Your task to perform on an android device: Clear all items from cart on newegg. Search for "razer kraken" on newegg, select the first entry, add it to the cart, then select checkout. Image 0: 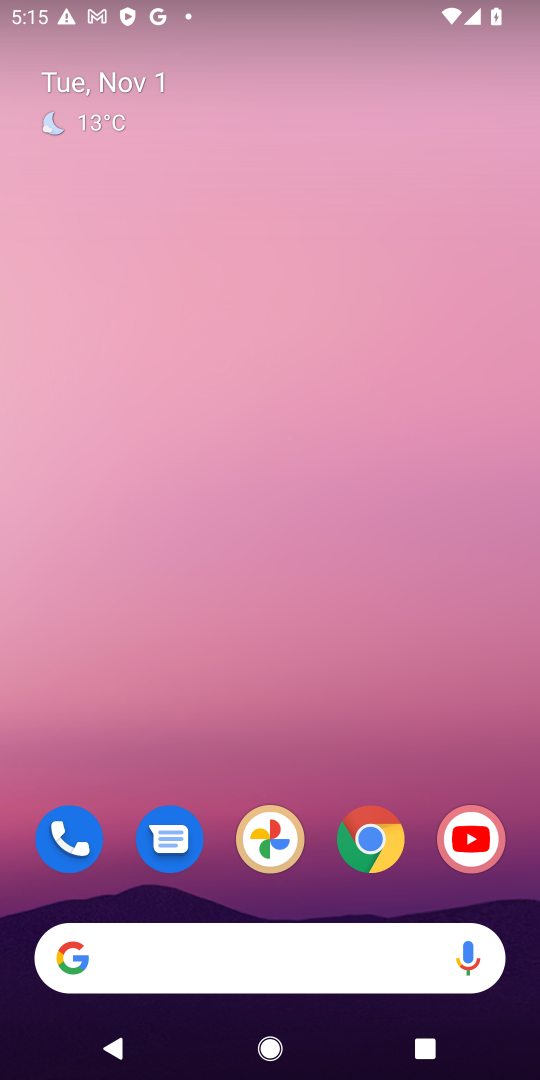
Step 0: drag from (307, 887) to (413, 81)
Your task to perform on an android device: Clear all items from cart on newegg. Search for "razer kraken" on newegg, select the first entry, add it to the cart, then select checkout. Image 1: 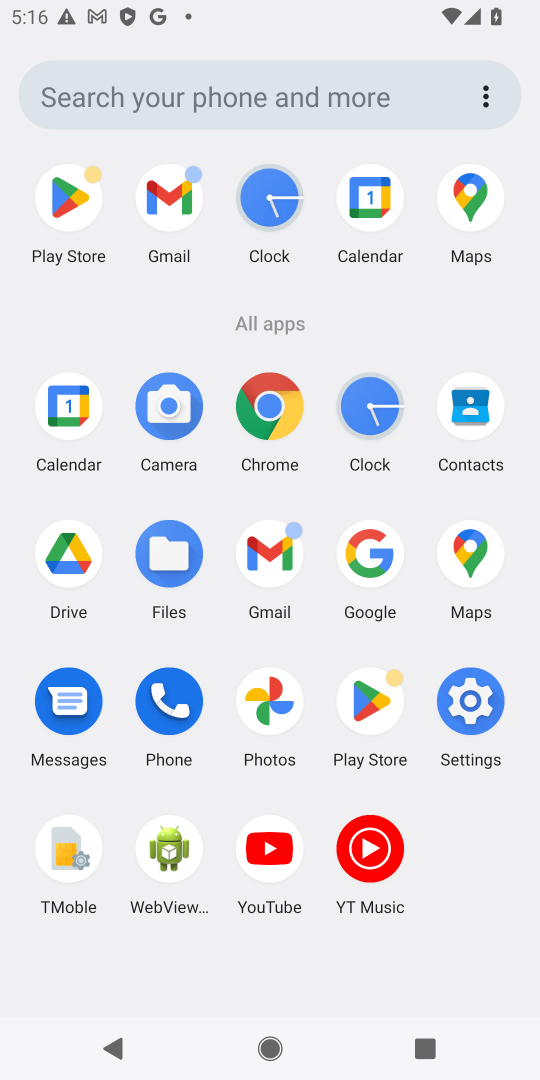
Step 1: click (268, 401)
Your task to perform on an android device: Clear all items from cart on newegg. Search for "razer kraken" on newegg, select the first entry, add it to the cart, then select checkout. Image 2: 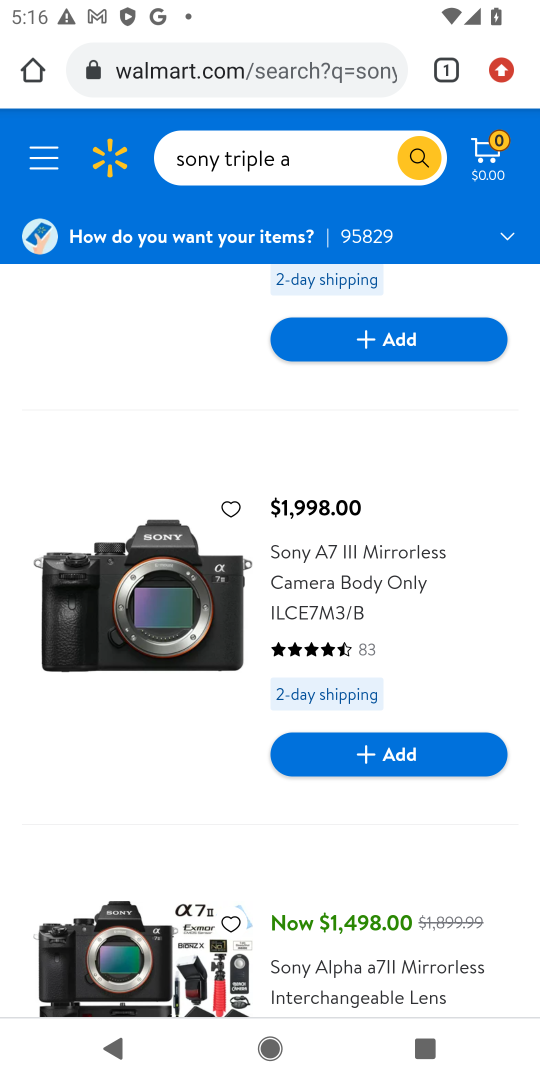
Step 2: click (485, 152)
Your task to perform on an android device: Clear all items from cart on newegg. Search for "razer kraken" on newegg, select the first entry, add it to the cart, then select checkout. Image 3: 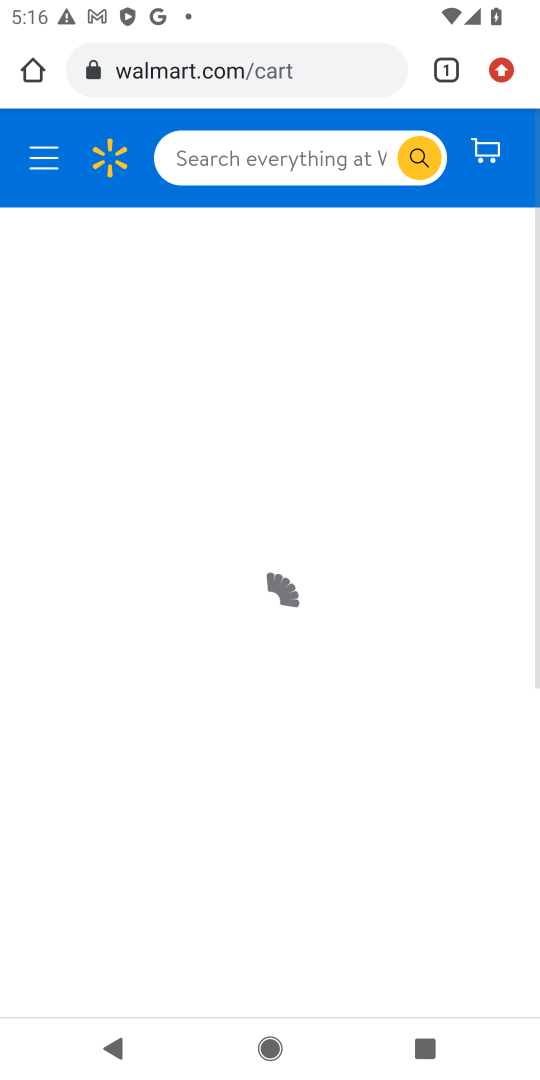
Step 3: click (325, 158)
Your task to perform on an android device: Clear all items from cart on newegg. Search for "razer kraken" on newegg, select the first entry, add it to the cart, then select checkout. Image 4: 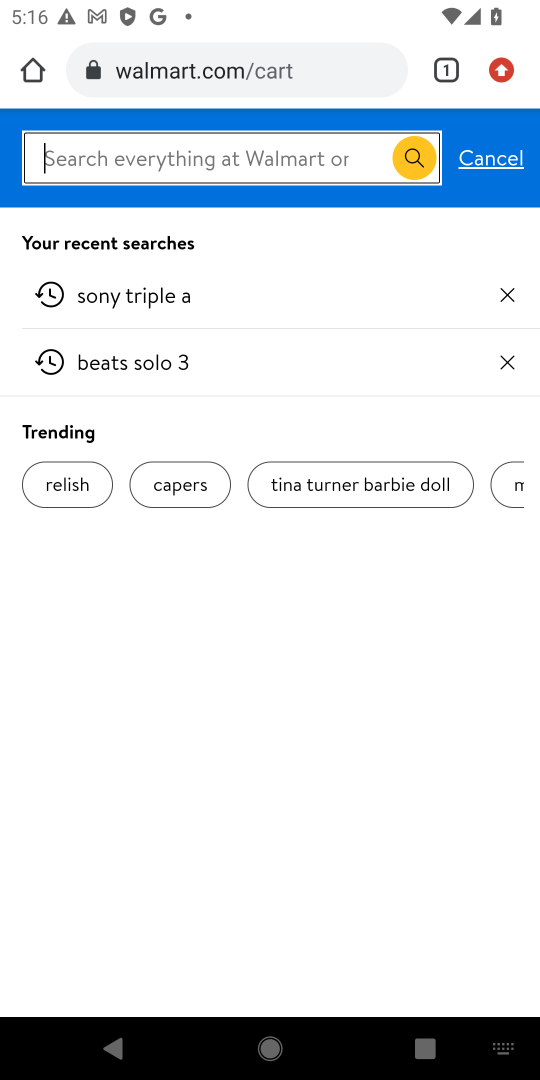
Step 4: click (330, 74)
Your task to perform on an android device: Clear all items from cart on newegg. Search for "razer kraken" on newegg, select the first entry, add it to the cart, then select checkout. Image 5: 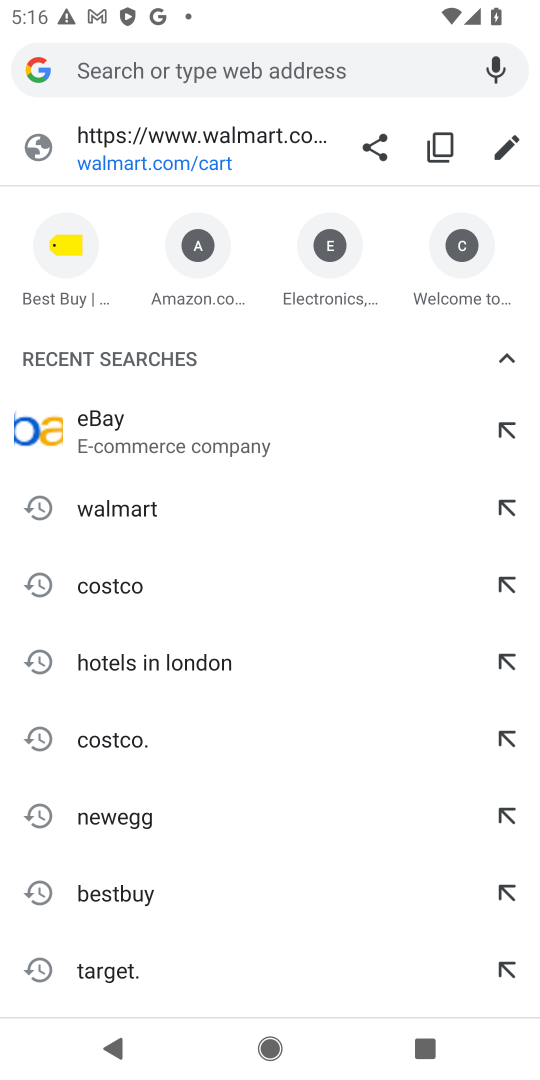
Step 5: type "newegg.com"
Your task to perform on an android device: Clear all items from cart on newegg. Search for "razer kraken" on newegg, select the first entry, add it to the cart, then select checkout. Image 6: 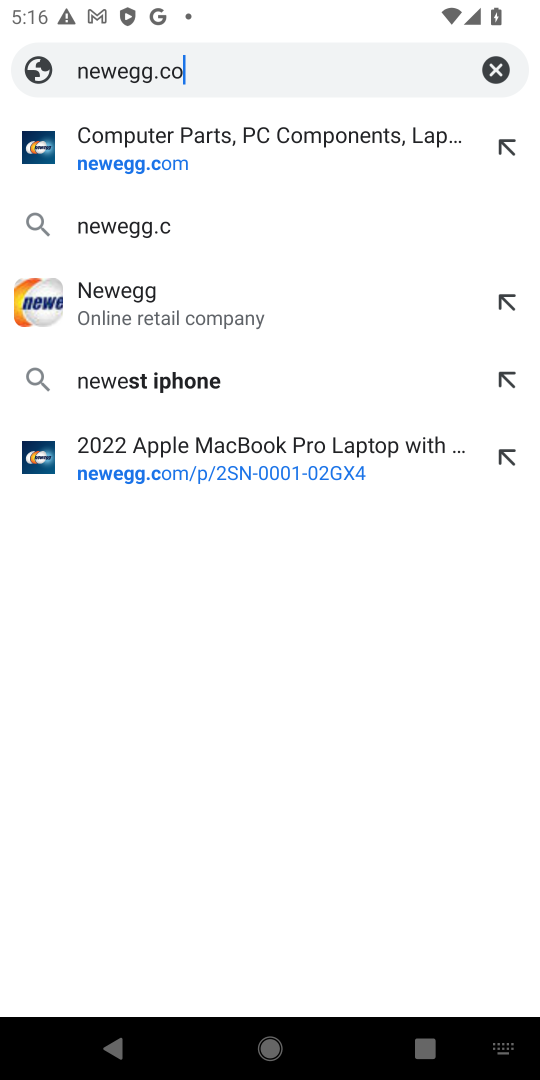
Step 6: press enter
Your task to perform on an android device: Clear all items from cart on newegg. Search for "razer kraken" on newegg, select the first entry, add it to the cart, then select checkout. Image 7: 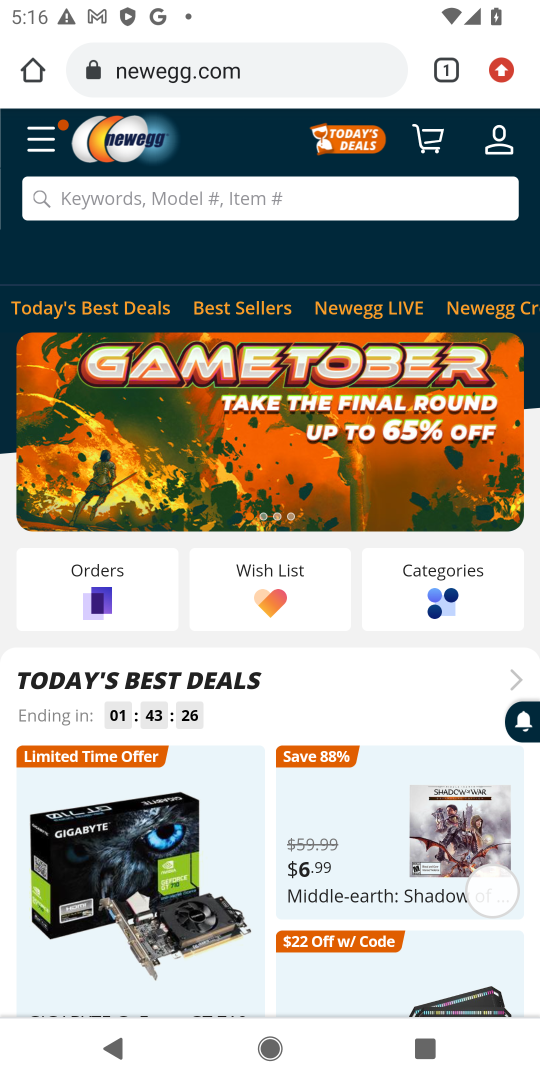
Step 7: click (430, 140)
Your task to perform on an android device: Clear all items from cart on newegg. Search for "razer kraken" on newegg, select the first entry, add it to the cart, then select checkout. Image 8: 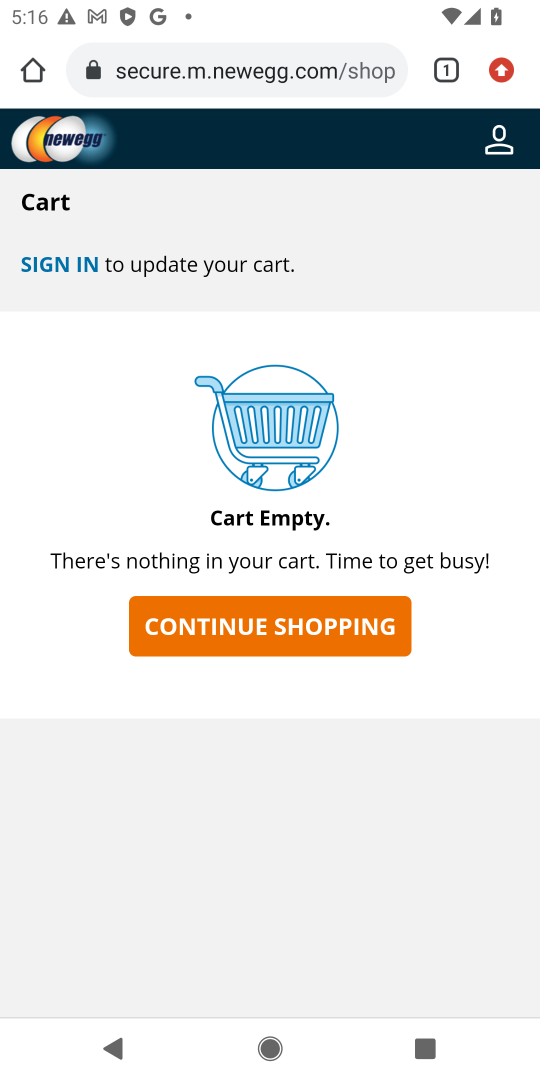
Step 8: click (312, 606)
Your task to perform on an android device: Clear all items from cart on newegg. Search for "razer kraken" on newegg, select the first entry, add it to the cart, then select checkout. Image 9: 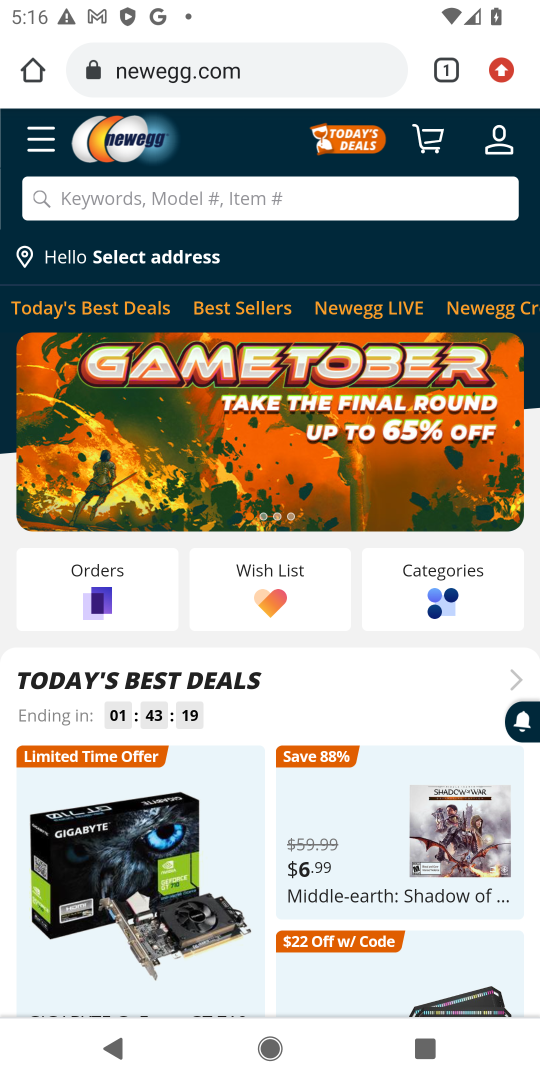
Step 9: click (304, 198)
Your task to perform on an android device: Clear all items from cart on newegg. Search for "razer kraken" on newegg, select the first entry, add it to the cart, then select checkout. Image 10: 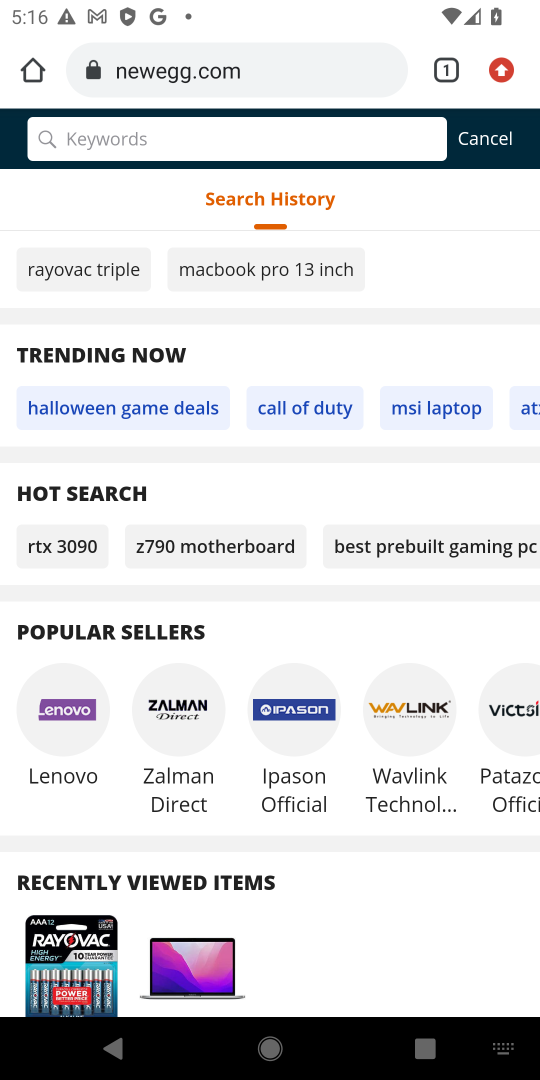
Step 10: type "razer karaken"
Your task to perform on an android device: Clear all items from cart on newegg. Search for "razer kraken" on newegg, select the first entry, add it to the cart, then select checkout. Image 11: 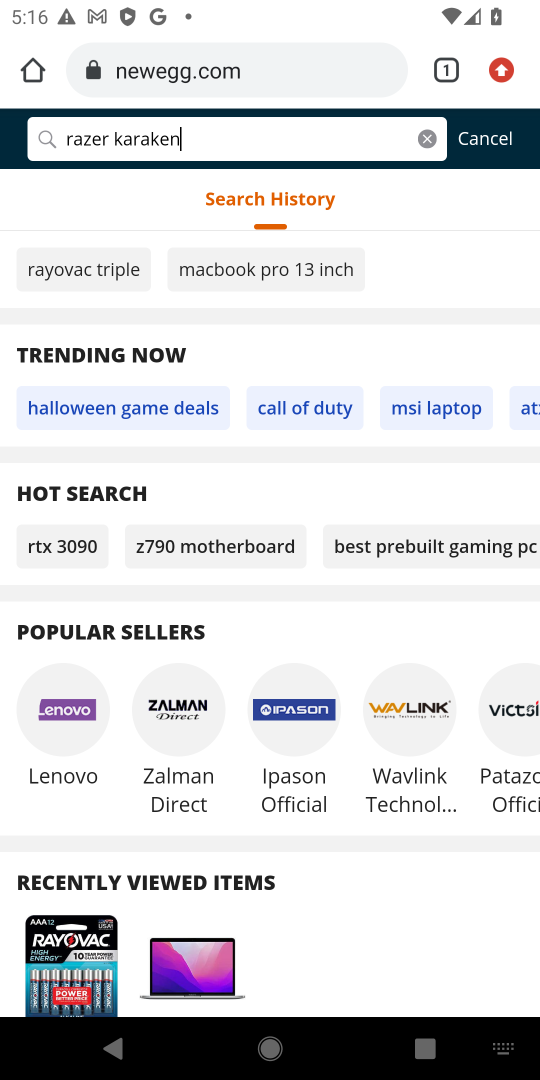
Step 11: press enter
Your task to perform on an android device: Clear all items from cart on newegg. Search for "razer kraken" on newegg, select the first entry, add it to the cart, then select checkout. Image 12: 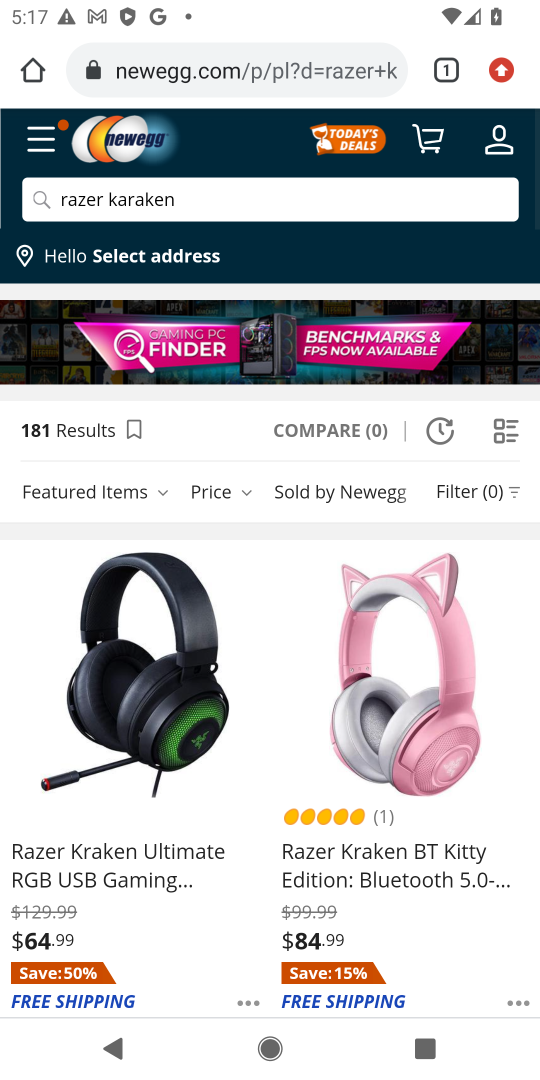
Step 12: click (162, 732)
Your task to perform on an android device: Clear all items from cart on newegg. Search for "razer kraken" on newegg, select the first entry, add it to the cart, then select checkout. Image 13: 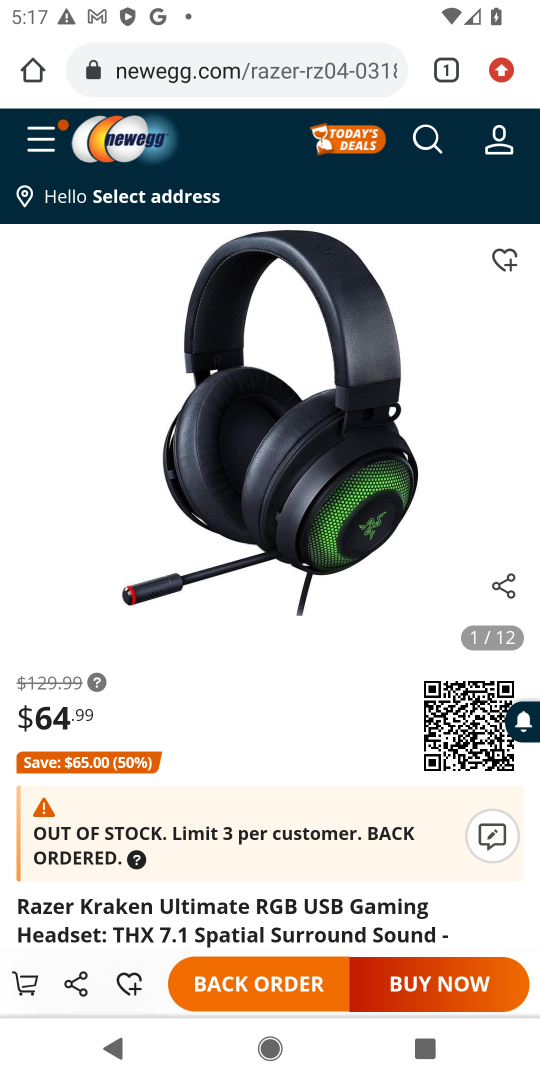
Step 13: task complete